Your task to perform on an android device: Open Chrome and go to settings Image 0: 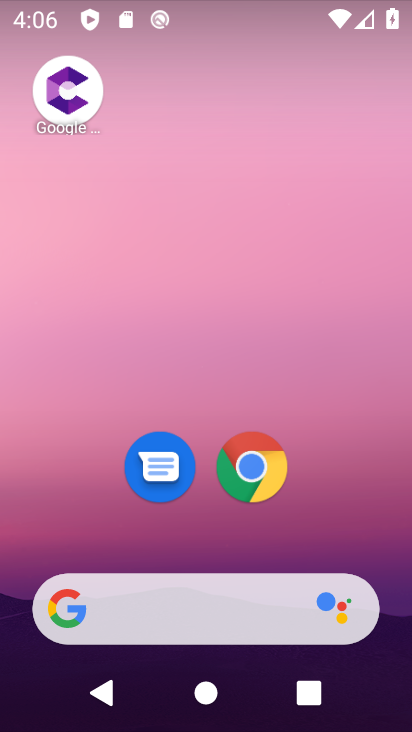
Step 0: drag from (348, 517) to (267, 127)
Your task to perform on an android device: Open Chrome and go to settings Image 1: 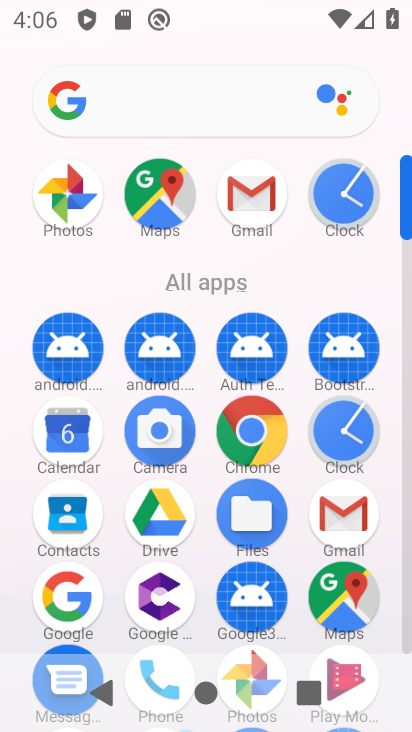
Step 1: click (239, 439)
Your task to perform on an android device: Open Chrome and go to settings Image 2: 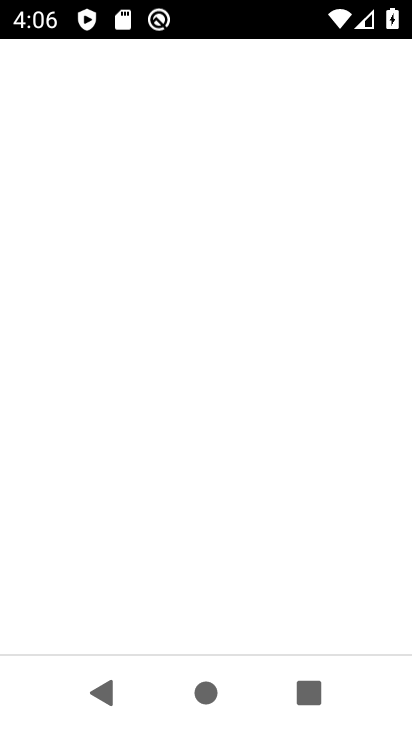
Step 2: click (246, 468)
Your task to perform on an android device: Open Chrome and go to settings Image 3: 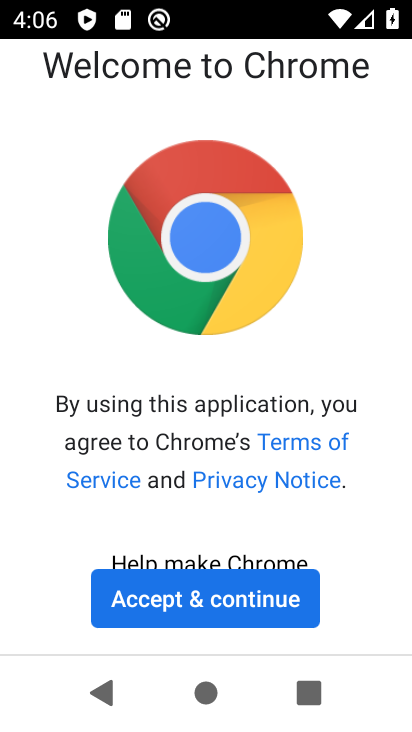
Step 3: click (179, 590)
Your task to perform on an android device: Open Chrome and go to settings Image 4: 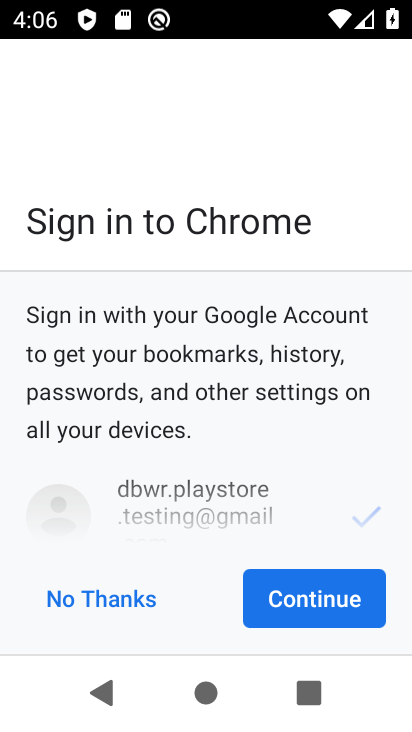
Step 4: click (324, 601)
Your task to perform on an android device: Open Chrome and go to settings Image 5: 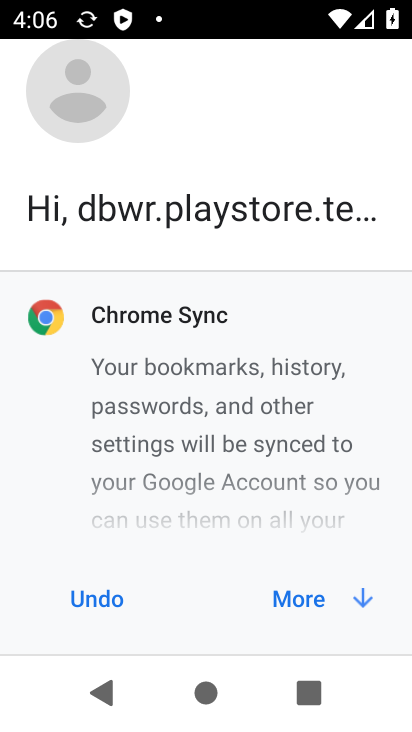
Step 5: click (308, 599)
Your task to perform on an android device: Open Chrome and go to settings Image 6: 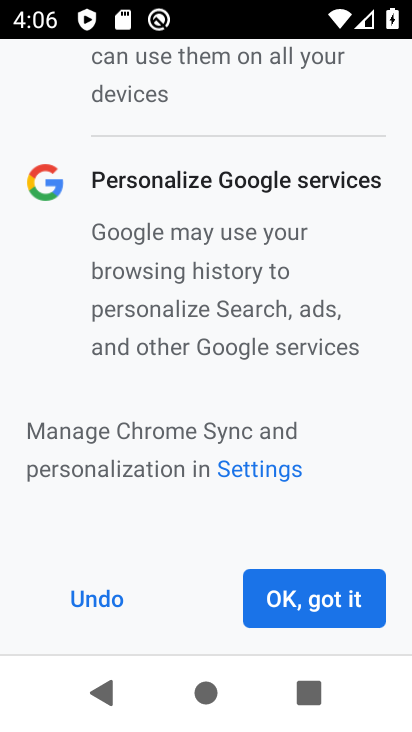
Step 6: click (304, 597)
Your task to perform on an android device: Open Chrome and go to settings Image 7: 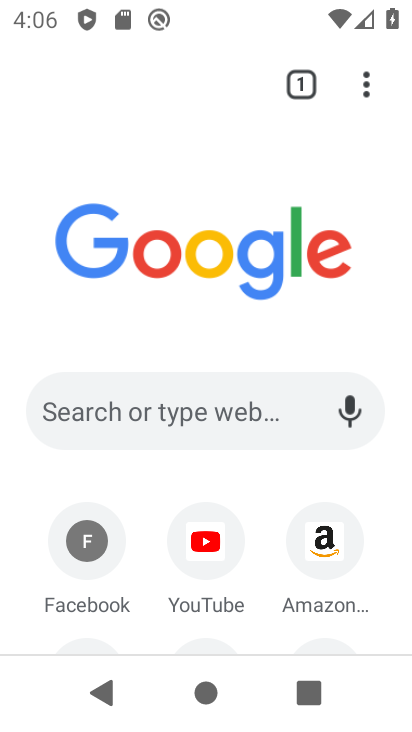
Step 7: click (368, 82)
Your task to perform on an android device: Open Chrome and go to settings Image 8: 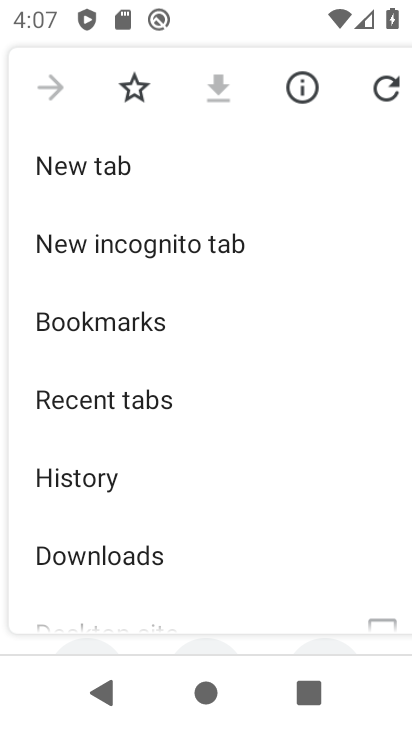
Step 8: drag from (169, 520) to (145, 270)
Your task to perform on an android device: Open Chrome and go to settings Image 9: 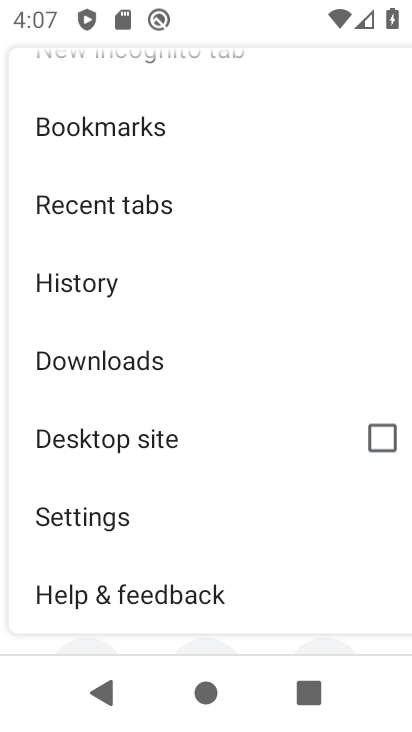
Step 9: drag from (188, 194) to (203, 349)
Your task to perform on an android device: Open Chrome and go to settings Image 10: 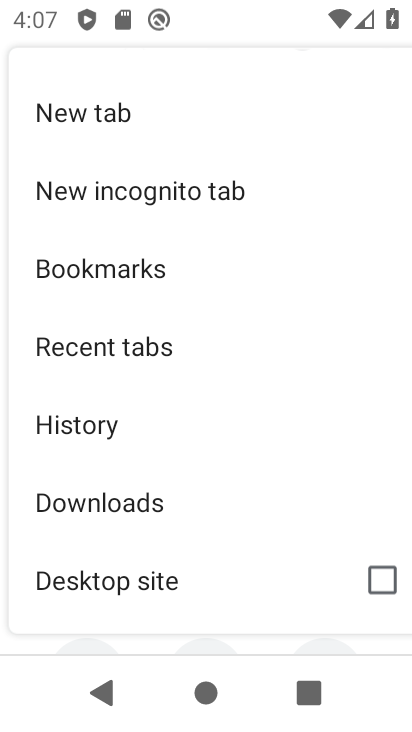
Step 10: drag from (221, 272) to (195, 543)
Your task to perform on an android device: Open Chrome and go to settings Image 11: 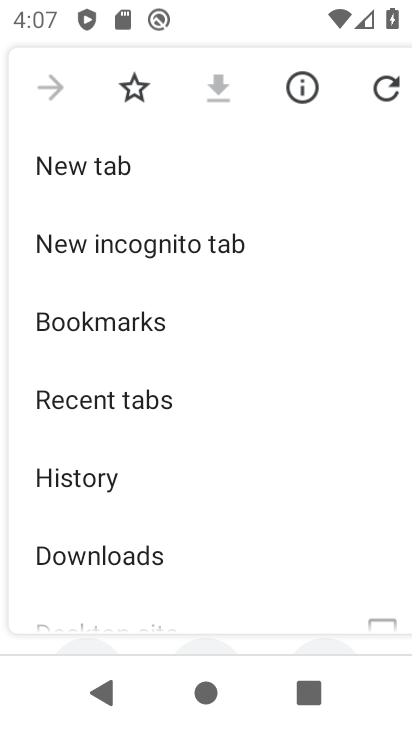
Step 11: drag from (208, 589) to (235, 246)
Your task to perform on an android device: Open Chrome and go to settings Image 12: 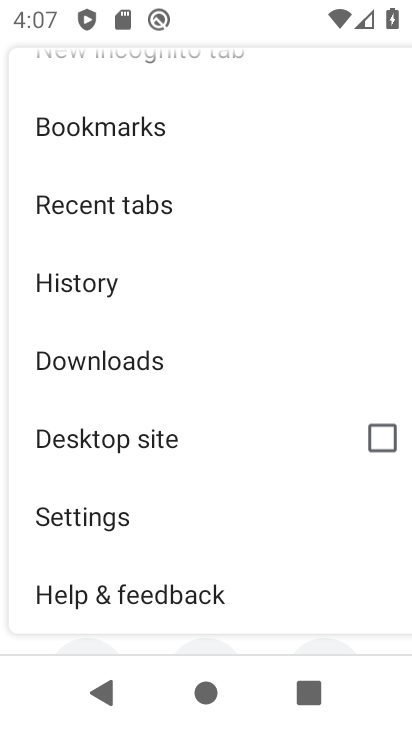
Step 12: drag from (222, 436) to (256, 243)
Your task to perform on an android device: Open Chrome and go to settings Image 13: 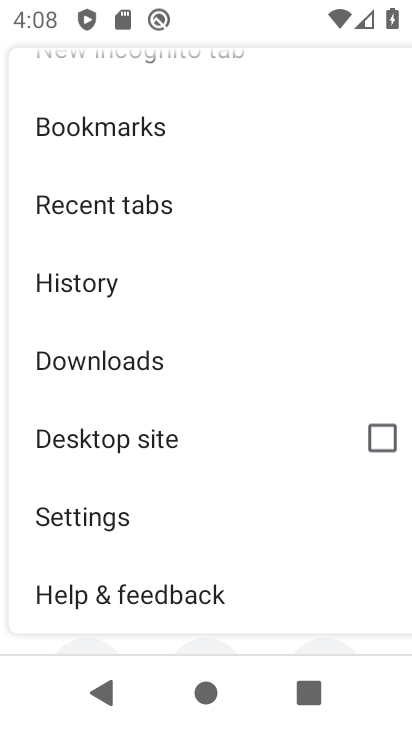
Step 13: click (108, 528)
Your task to perform on an android device: Open Chrome and go to settings Image 14: 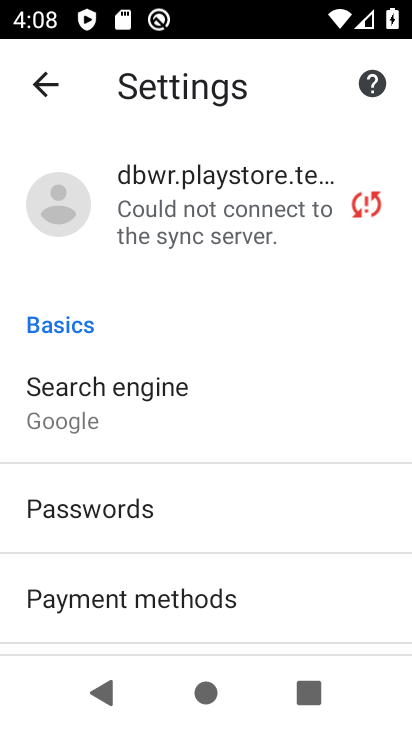
Step 14: task complete